Your task to perform on an android device: Open CNN.com Image 0: 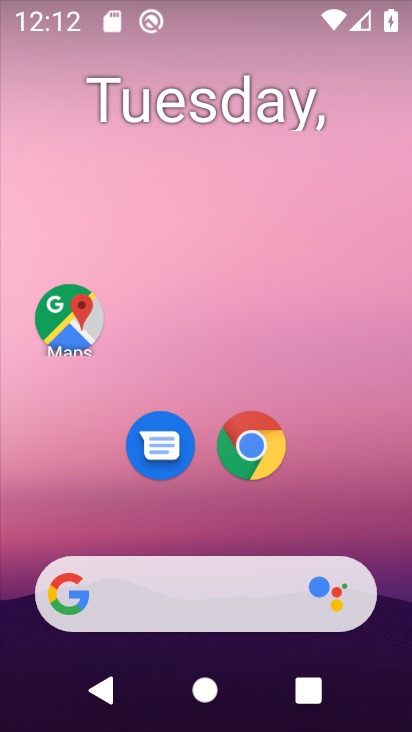
Step 0: click (267, 445)
Your task to perform on an android device: Open CNN.com Image 1: 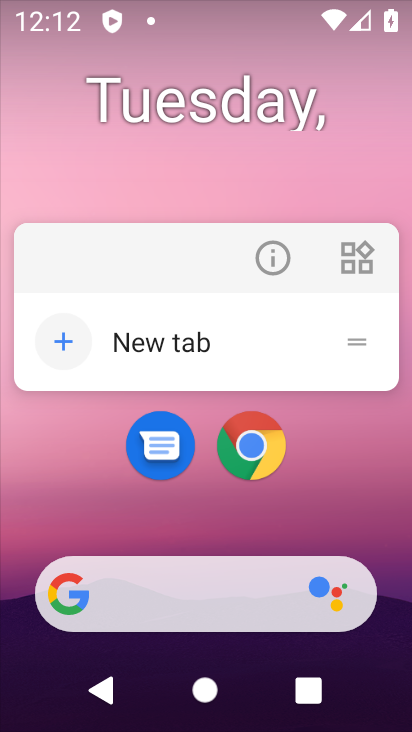
Step 1: click (241, 465)
Your task to perform on an android device: Open CNN.com Image 2: 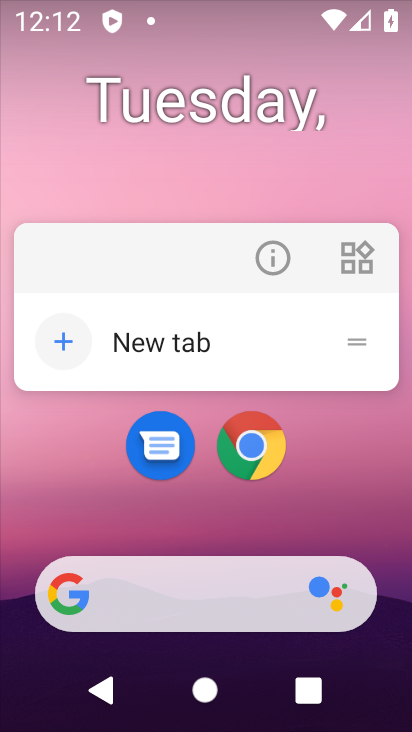
Step 2: click (260, 462)
Your task to perform on an android device: Open CNN.com Image 3: 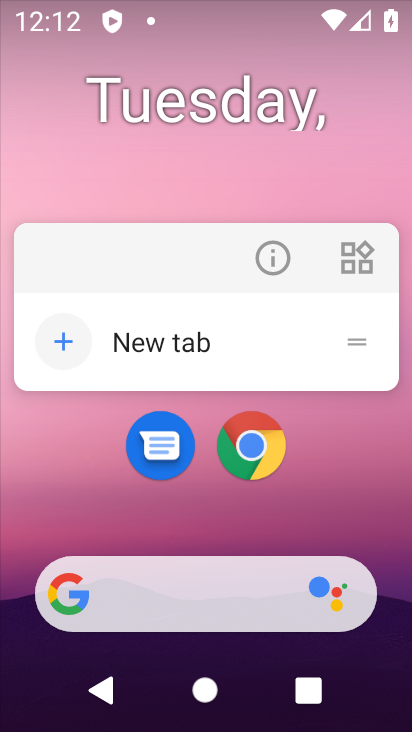
Step 3: click (259, 462)
Your task to perform on an android device: Open CNN.com Image 4: 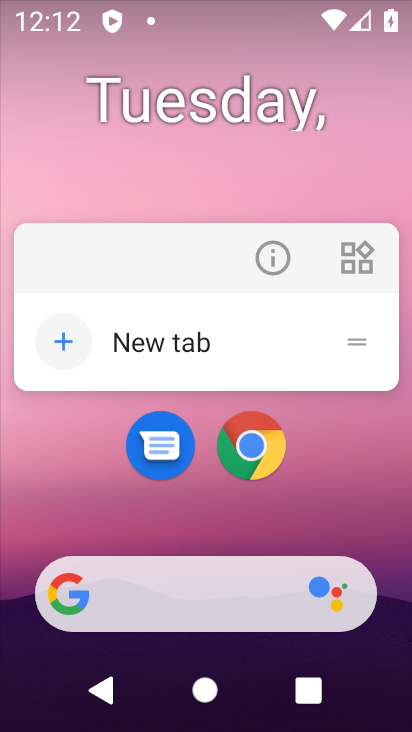
Step 4: click (259, 462)
Your task to perform on an android device: Open CNN.com Image 5: 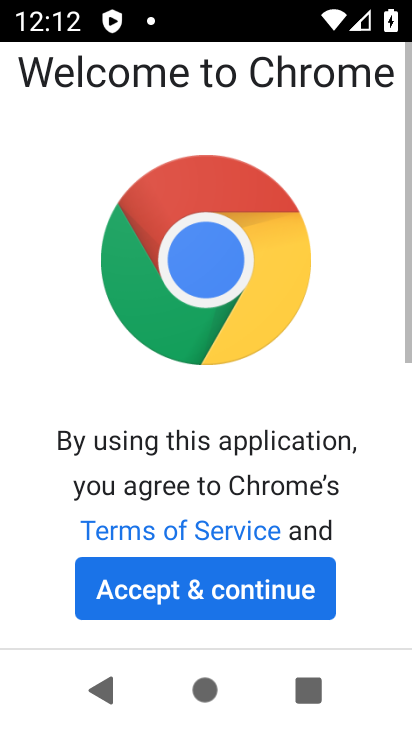
Step 5: click (263, 601)
Your task to perform on an android device: Open CNN.com Image 6: 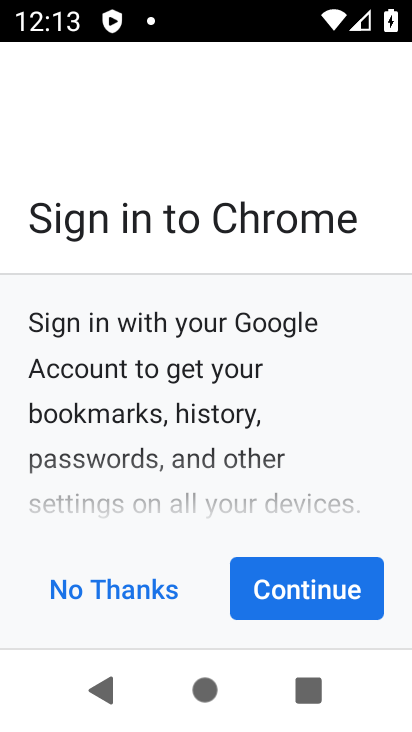
Step 6: click (263, 601)
Your task to perform on an android device: Open CNN.com Image 7: 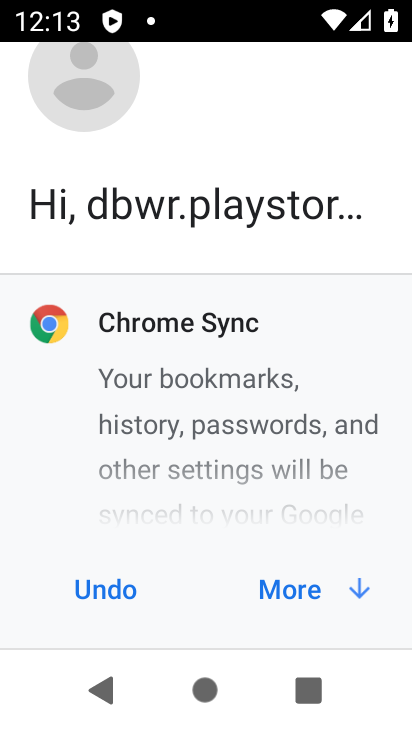
Step 7: click (326, 598)
Your task to perform on an android device: Open CNN.com Image 8: 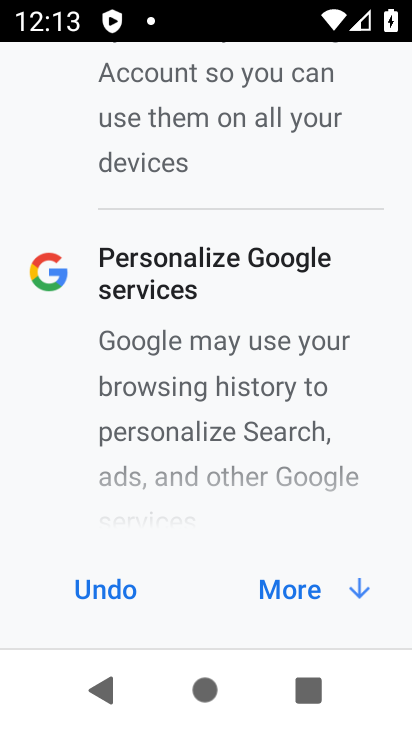
Step 8: click (326, 598)
Your task to perform on an android device: Open CNN.com Image 9: 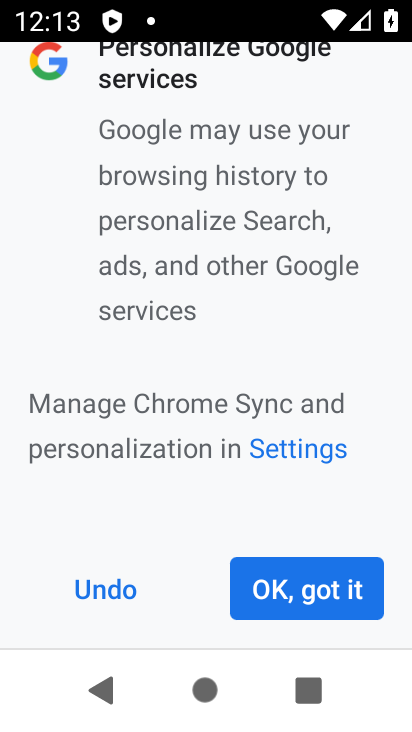
Step 9: click (326, 598)
Your task to perform on an android device: Open CNN.com Image 10: 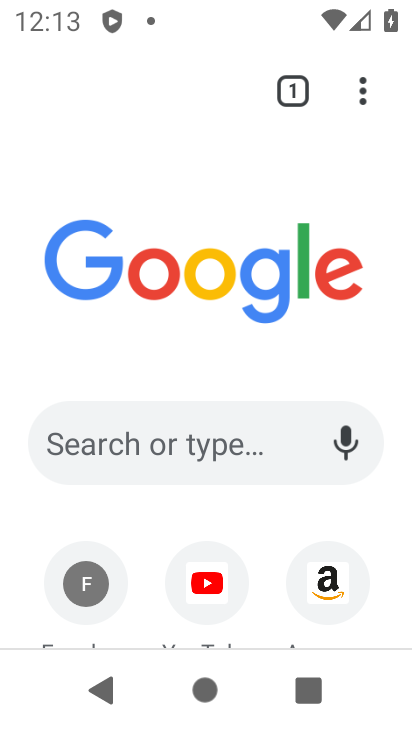
Step 10: click (162, 456)
Your task to perform on an android device: Open CNN.com Image 11: 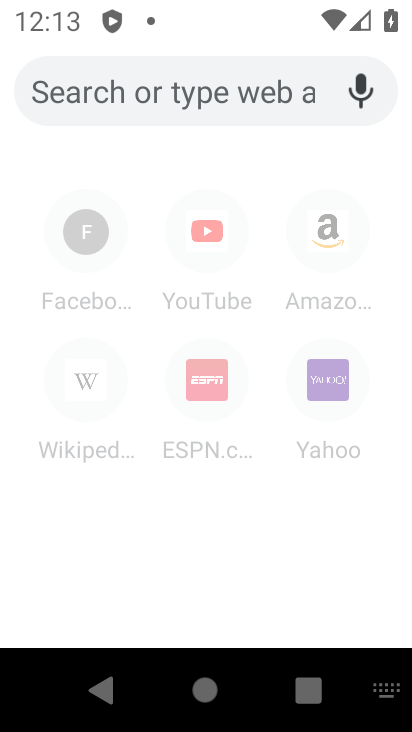
Step 11: type "CNN.com"
Your task to perform on an android device: Open CNN.com Image 12: 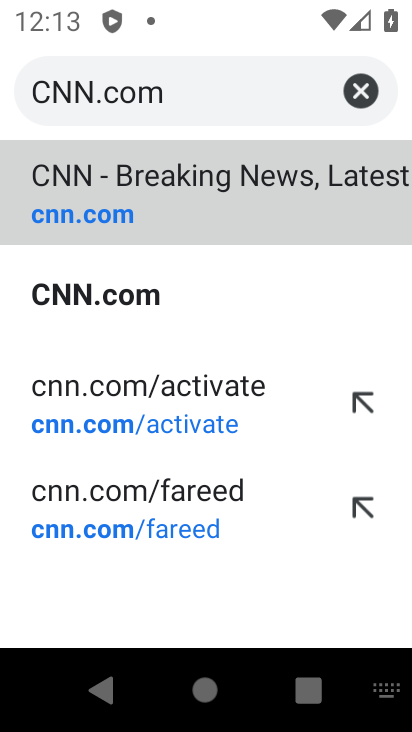
Step 12: click (219, 233)
Your task to perform on an android device: Open CNN.com Image 13: 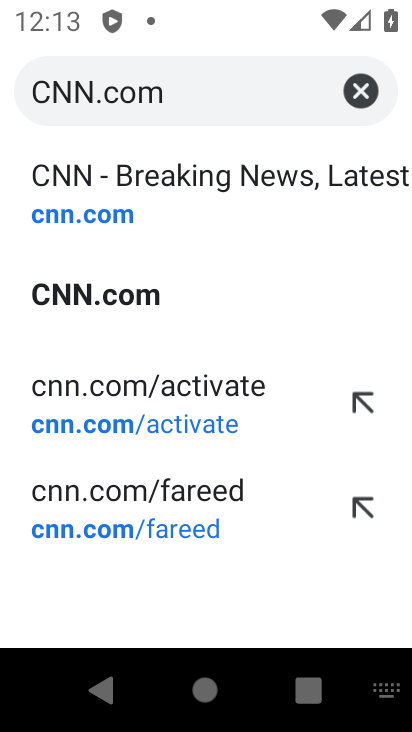
Step 13: click (107, 231)
Your task to perform on an android device: Open CNN.com Image 14: 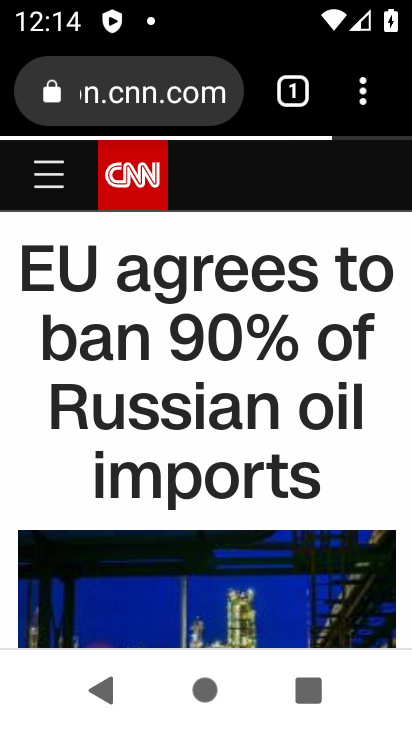
Step 14: task complete